Your task to perform on an android device: turn on data saver in the chrome app Image 0: 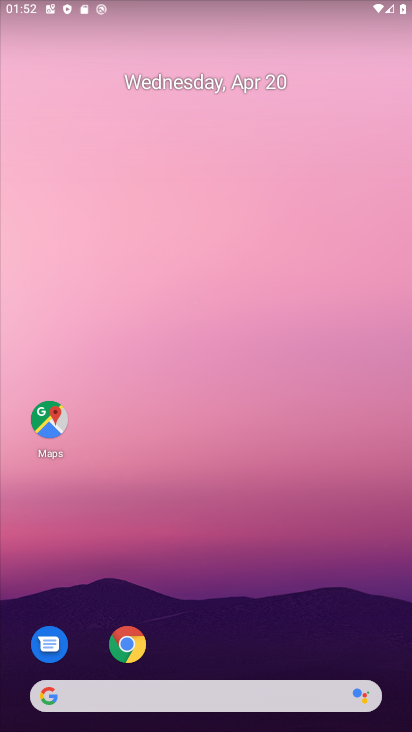
Step 0: click (122, 656)
Your task to perform on an android device: turn on data saver in the chrome app Image 1: 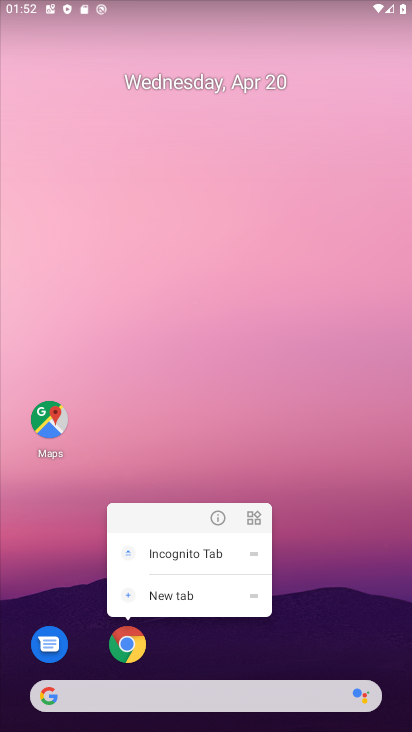
Step 1: click (128, 645)
Your task to perform on an android device: turn on data saver in the chrome app Image 2: 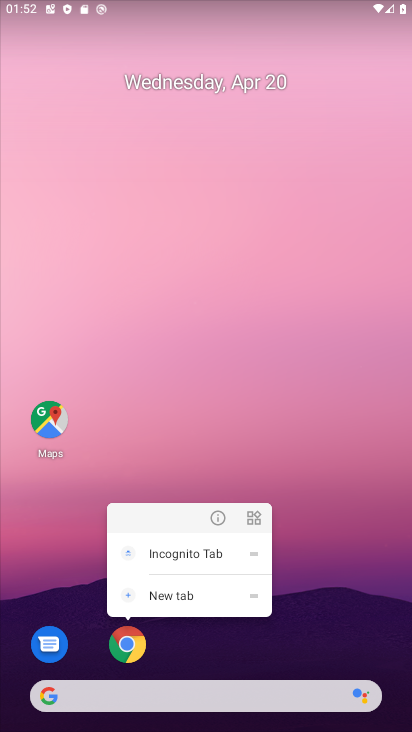
Step 2: click (128, 646)
Your task to perform on an android device: turn on data saver in the chrome app Image 3: 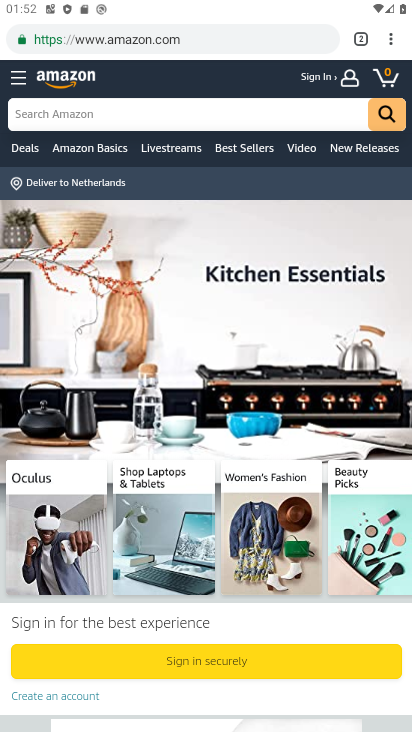
Step 3: drag from (388, 37) to (270, 466)
Your task to perform on an android device: turn on data saver in the chrome app Image 4: 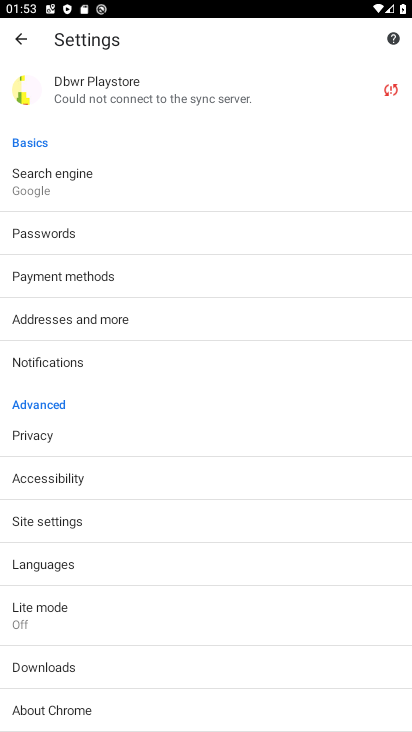
Step 4: click (100, 617)
Your task to perform on an android device: turn on data saver in the chrome app Image 5: 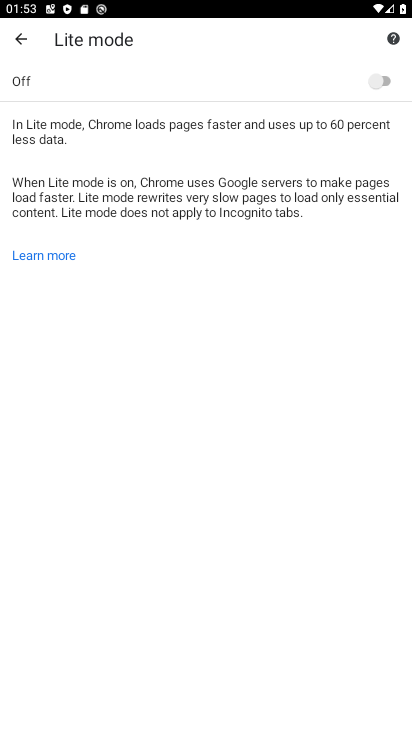
Step 5: click (394, 78)
Your task to perform on an android device: turn on data saver in the chrome app Image 6: 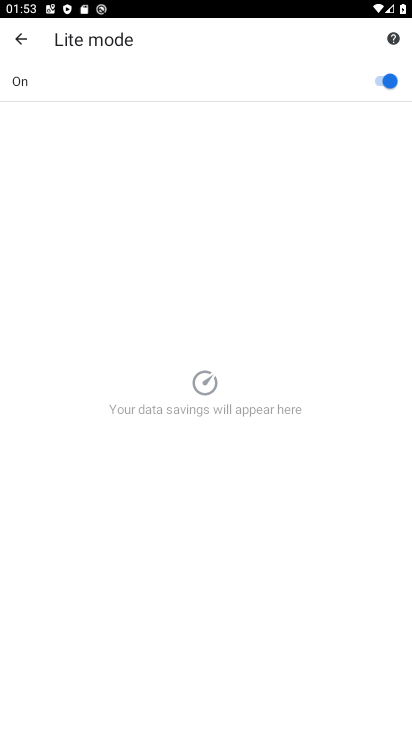
Step 6: task complete